Your task to perform on an android device: change the clock display to analog Image 0: 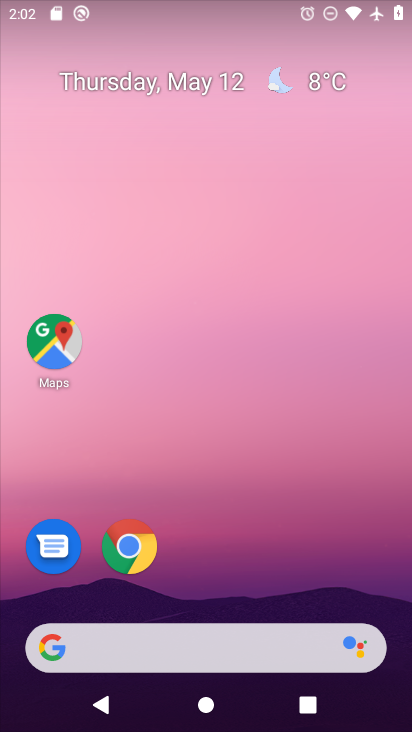
Step 0: drag from (158, 642) to (272, 180)
Your task to perform on an android device: change the clock display to analog Image 1: 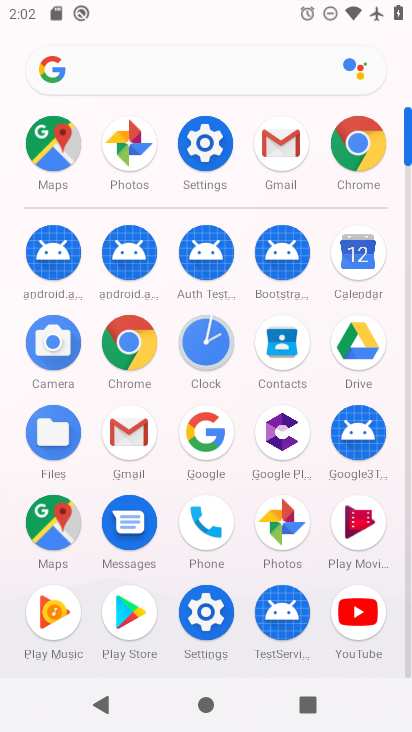
Step 1: click (201, 355)
Your task to perform on an android device: change the clock display to analog Image 2: 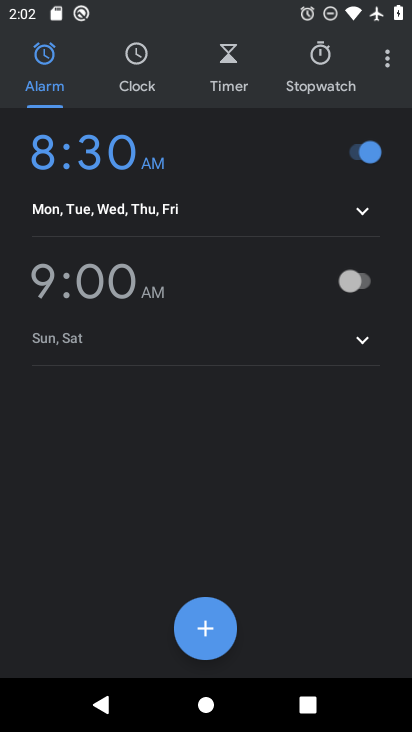
Step 2: click (387, 66)
Your task to perform on an android device: change the clock display to analog Image 3: 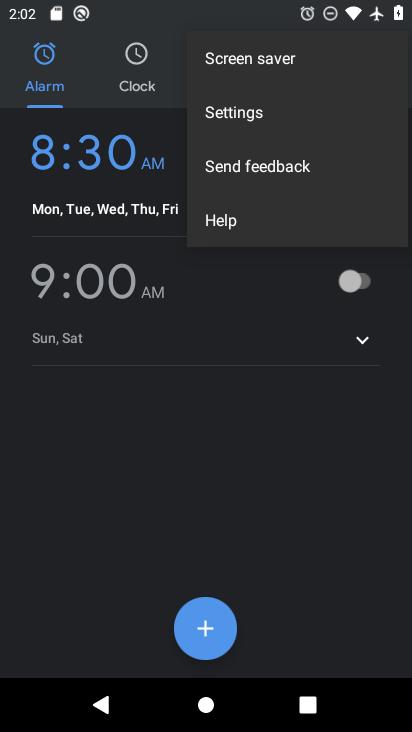
Step 3: click (249, 116)
Your task to perform on an android device: change the clock display to analog Image 4: 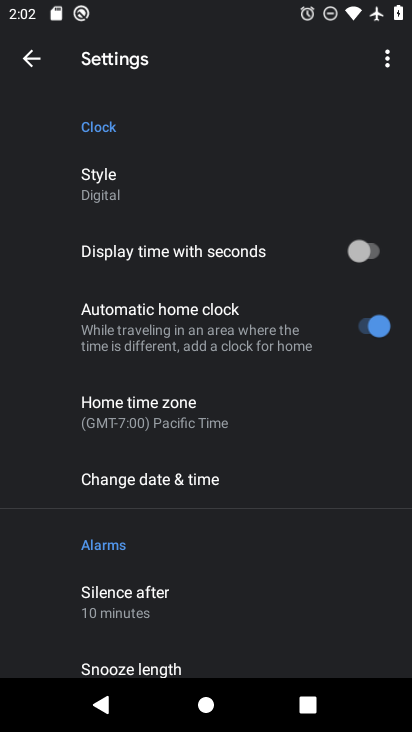
Step 4: click (114, 191)
Your task to perform on an android device: change the clock display to analog Image 5: 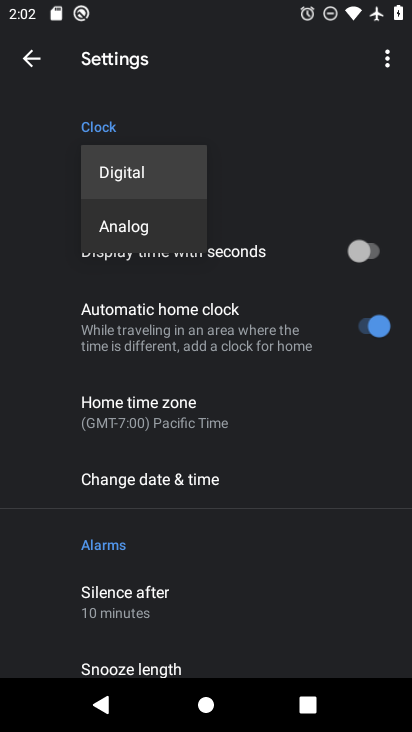
Step 5: click (134, 224)
Your task to perform on an android device: change the clock display to analog Image 6: 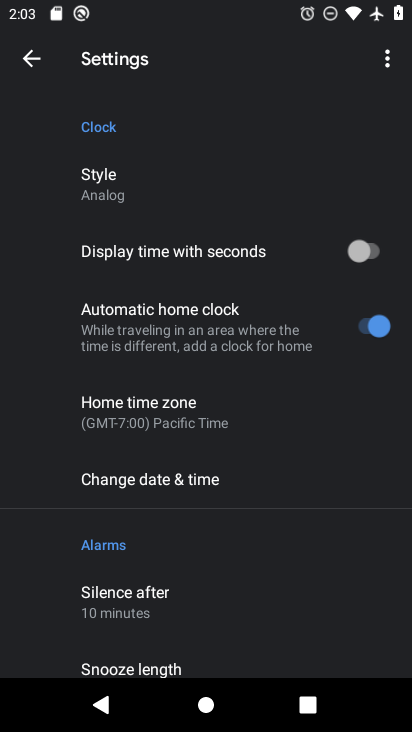
Step 6: task complete